Your task to perform on an android device: change notifications settings Image 0: 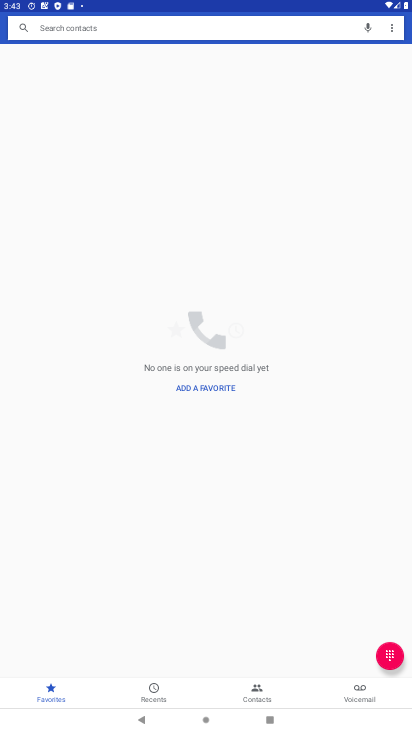
Step 0: press home button
Your task to perform on an android device: change notifications settings Image 1: 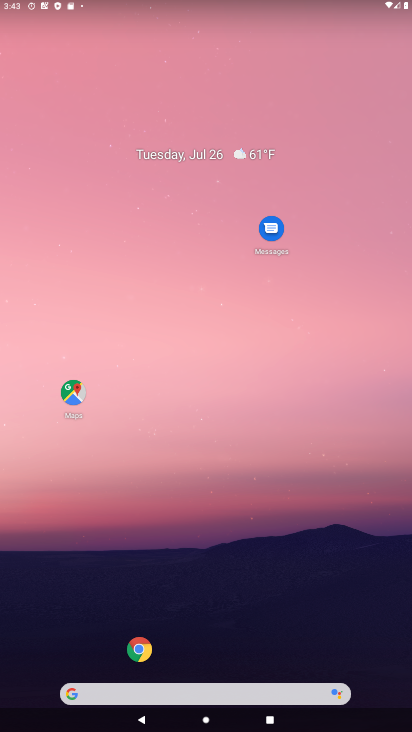
Step 1: drag from (15, 688) to (232, 51)
Your task to perform on an android device: change notifications settings Image 2: 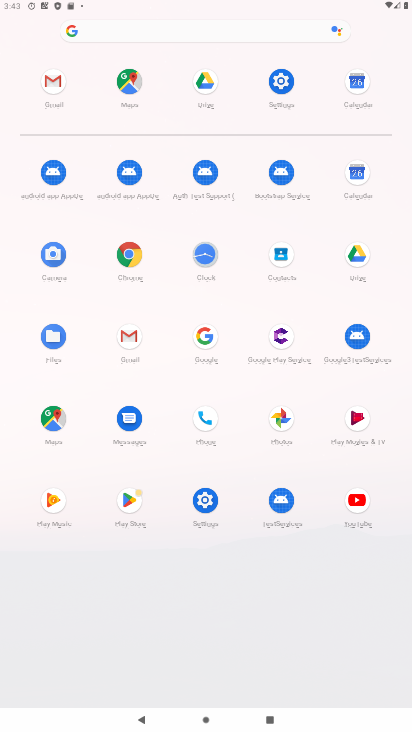
Step 2: click (208, 513)
Your task to perform on an android device: change notifications settings Image 3: 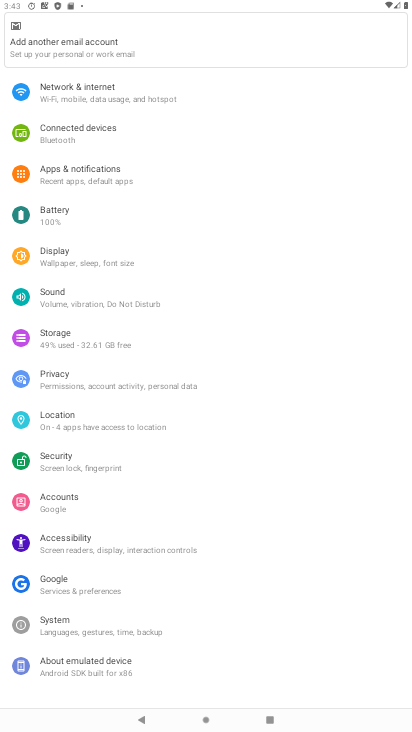
Step 3: click (91, 171)
Your task to perform on an android device: change notifications settings Image 4: 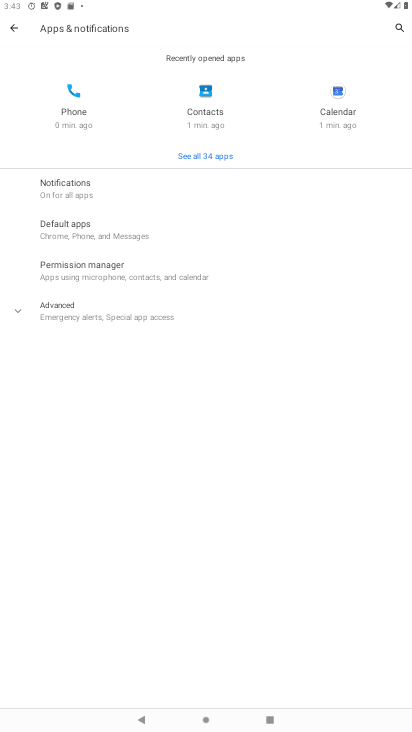
Step 4: task complete